Your task to perform on an android device: Show me a list of home improvement items on the Home Depot website. Image 0: 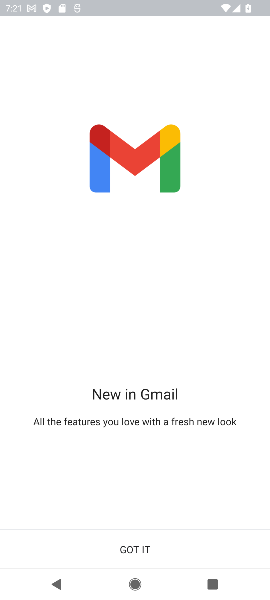
Step 0: press home button
Your task to perform on an android device: Show me a list of home improvement items on the Home Depot website. Image 1: 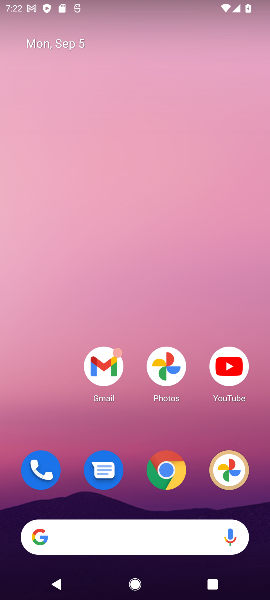
Step 1: drag from (138, 498) to (86, 32)
Your task to perform on an android device: Show me a list of home improvement items on the Home Depot website. Image 2: 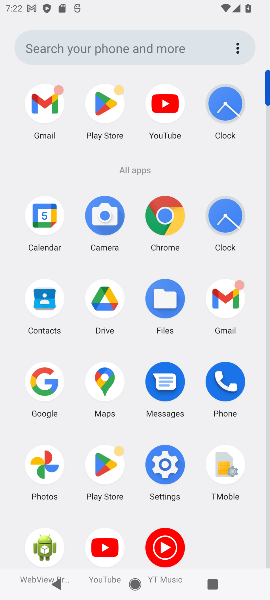
Step 2: click (26, 390)
Your task to perform on an android device: Show me a list of home improvement items on the Home Depot website. Image 3: 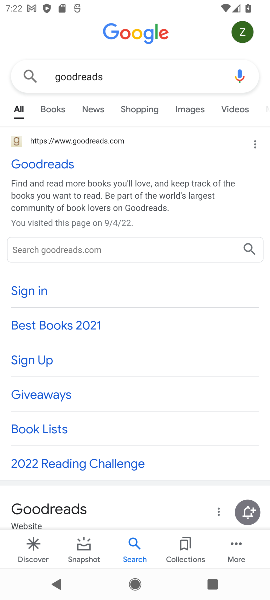
Step 3: press home button
Your task to perform on an android device: Show me a list of home improvement items on the Home Depot website. Image 4: 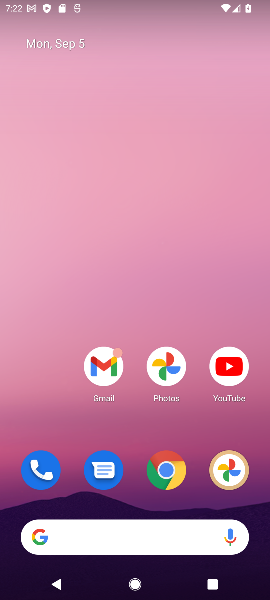
Step 4: click (157, 535)
Your task to perform on an android device: Show me a list of home improvement items on the Home Depot website. Image 5: 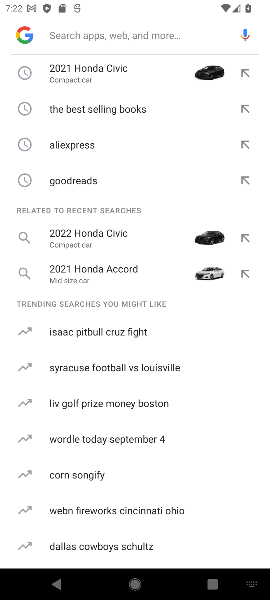
Step 5: type "the Home Depot website"
Your task to perform on an android device: Show me a list of home improvement items on the Home Depot website. Image 6: 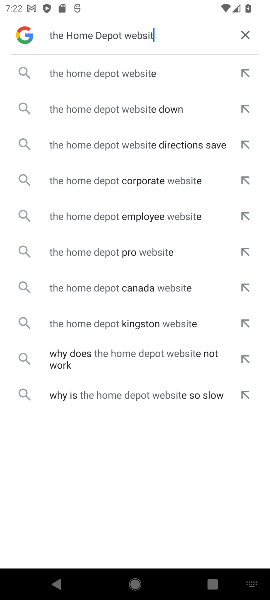
Step 6: type ""
Your task to perform on an android device: Show me a list of home improvement items on the Home Depot website. Image 7: 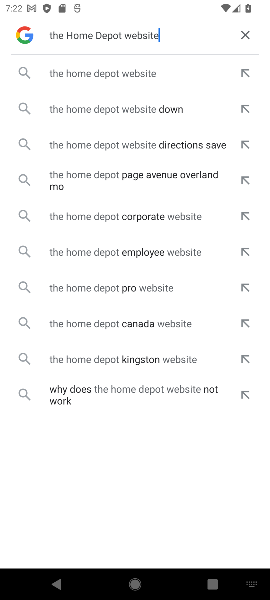
Step 7: click (106, 67)
Your task to perform on an android device: Show me a list of home improvement items on the Home Depot website. Image 8: 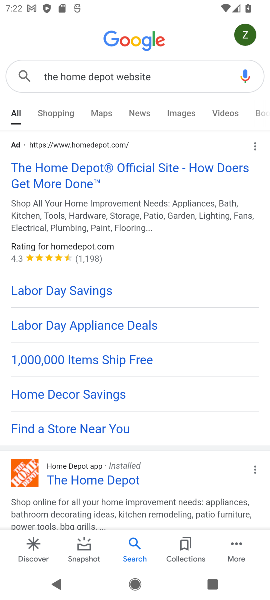
Step 8: click (44, 175)
Your task to perform on an android device: Show me a list of home improvement items on the Home Depot website. Image 9: 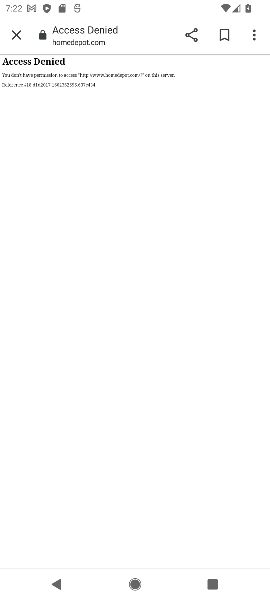
Step 9: task complete